Your task to perform on an android device: Go to accessibility settings Image 0: 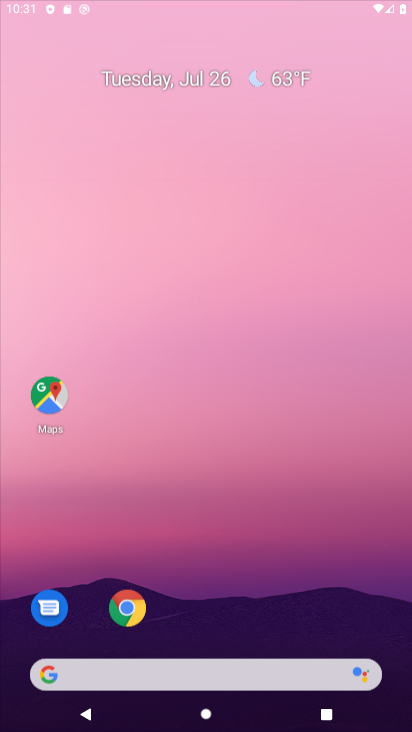
Step 0: press home button
Your task to perform on an android device: Go to accessibility settings Image 1: 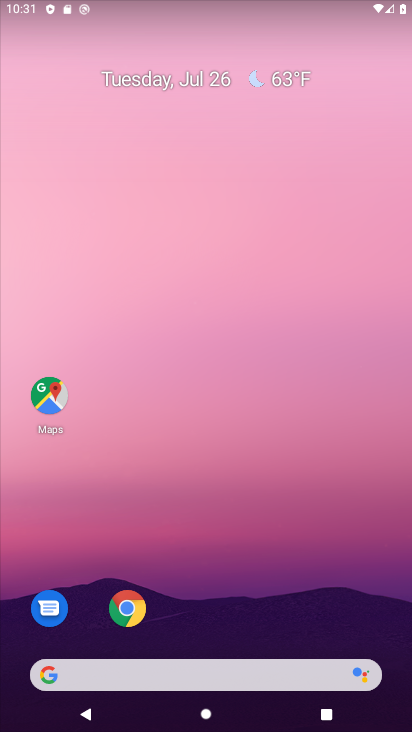
Step 1: drag from (219, 634) to (263, 73)
Your task to perform on an android device: Go to accessibility settings Image 2: 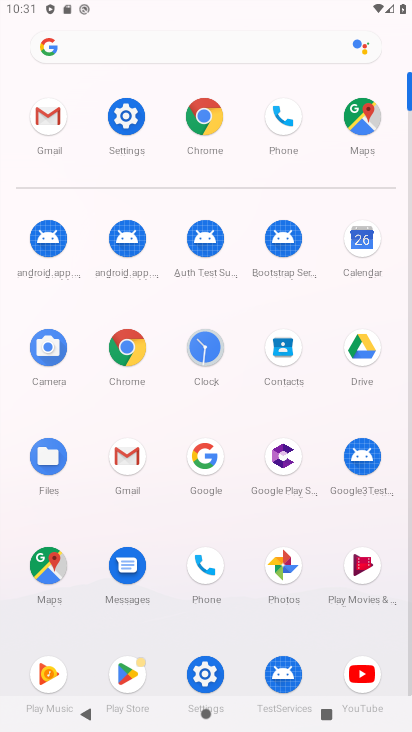
Step 2: click (117, 125)
Your task to perform on an android device: Go to accessibility settings Image 3: 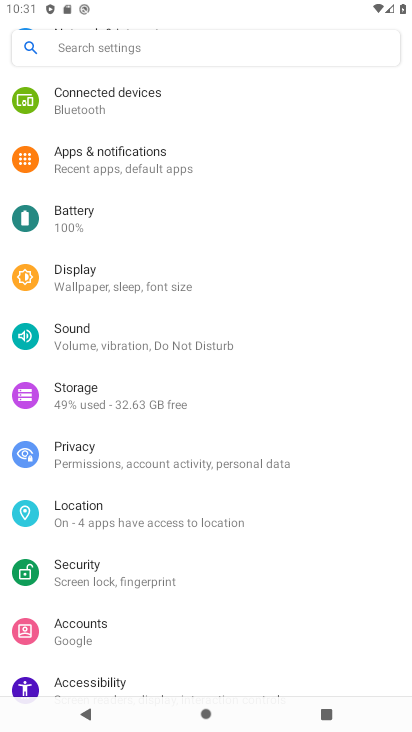
Step 3: click (100, 685)
Your task to perform on an android device: Go to accessibility settings Image 4: 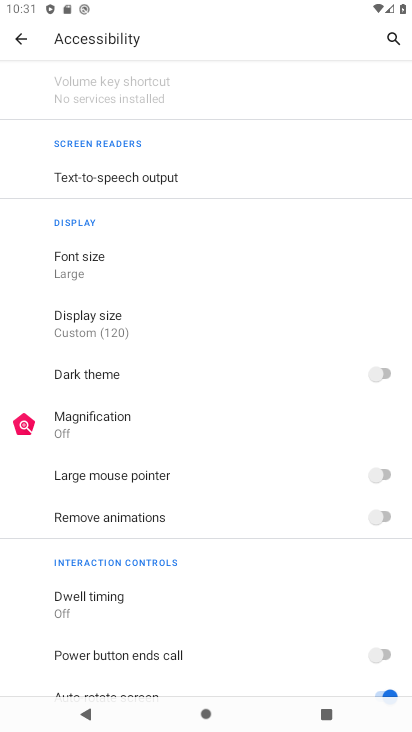
Step 4: task complete